Your task to perform on an android device: Open Youtube and go to "Your channel" Image 0: 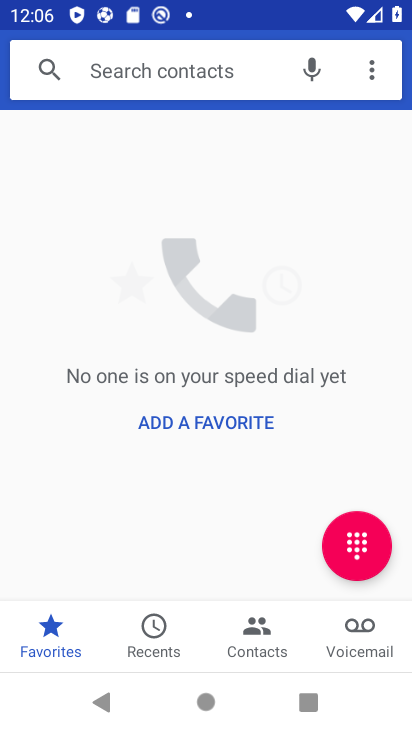
Step 0: press home button
Your task to perform on an android device: Open Youtube and go to "Your channel" Image 1: 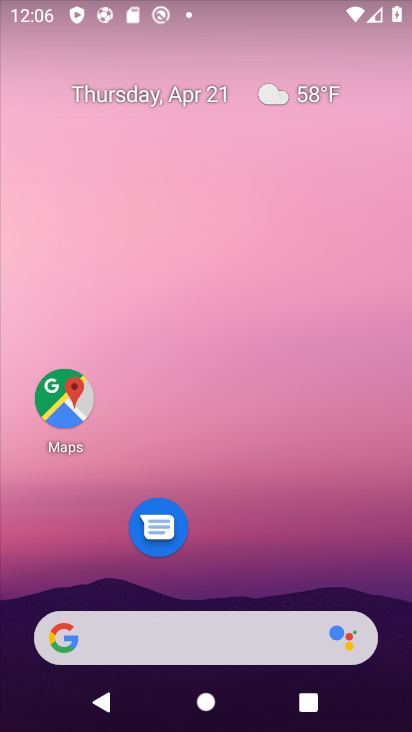
Step 1: drag from (206, 730) to (169, 81)
Your task to perform on an android device: Open Youtube and go to "Your channel" Image 2: 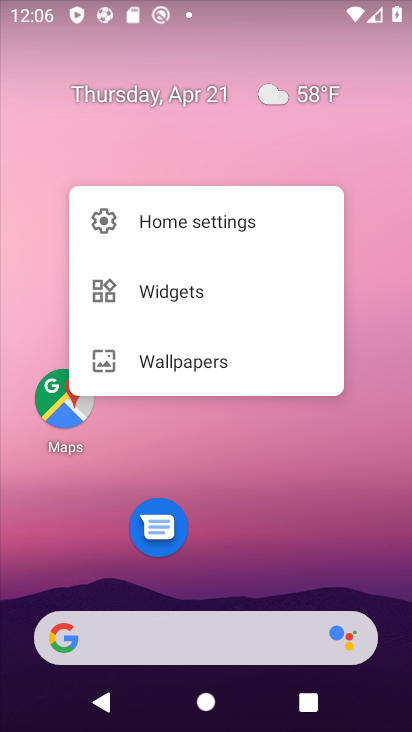
Step 2: click (223, 156)
Your task to perform on an android device: Open Youtube and go to "Your channel" Image 3: 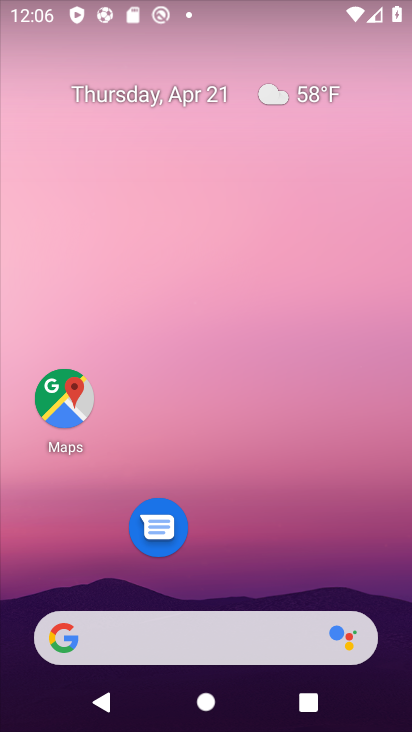
Step 3: drag from (228, 725) to (230, 69)
Your task to perform on an android device: Open Youtube and go to "Your channel" Image 4: 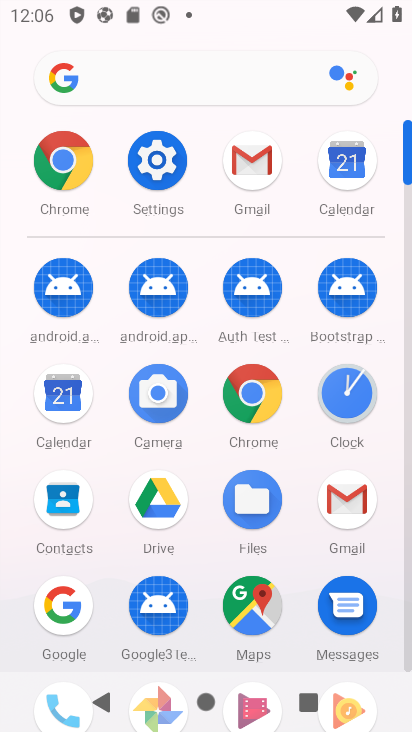
Step 4: drag from (295, 634) to (298, 258)
Your task to perform on an android device: Open Youtube and go to "Your channel" Image 5: 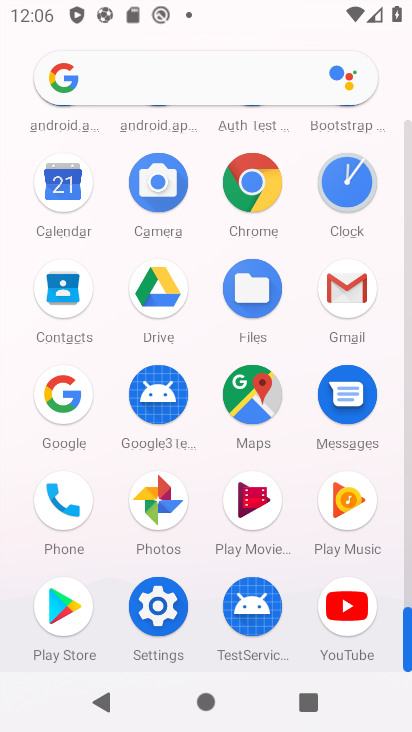
Step 5: click (346, 608)
Your task to perform on an android device: Open Youtube and go to "Your channel" Image 6: 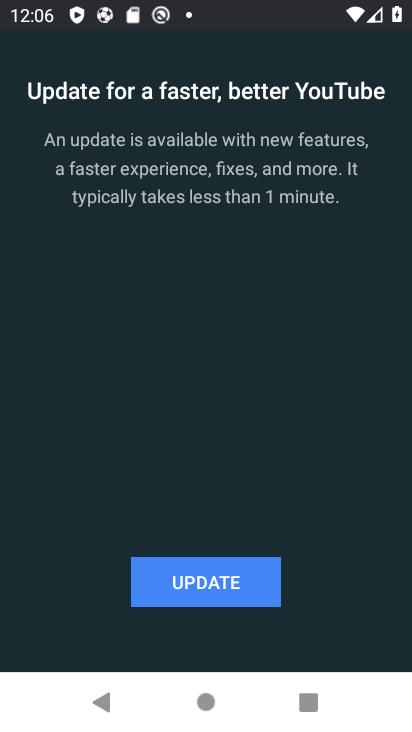
Step 6: click (226, 580)
Your task to perform on an android device: Open Youtube and go to "Your channel" Image 7: 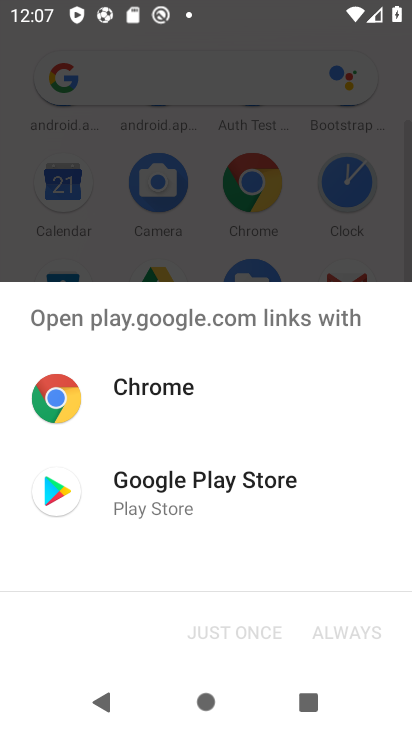
Step 7: click (256, 626)
Your task to perform on an android device: Open Youtube and go to "Your channel" Image 8: 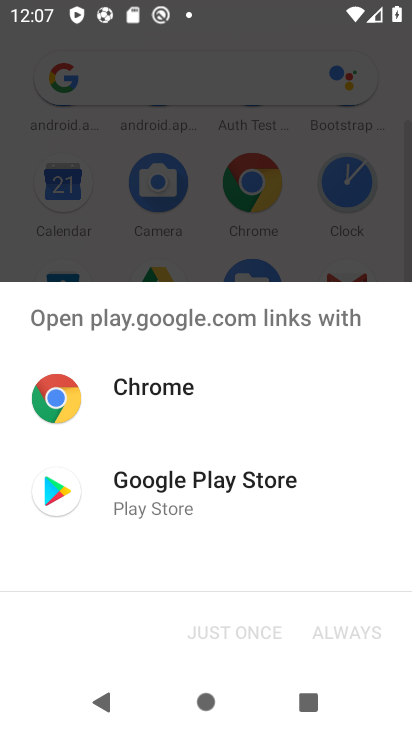
Step 8: press back button
Your task to perform on an android device: Open Youtube and go to "Your channel" Image 9: 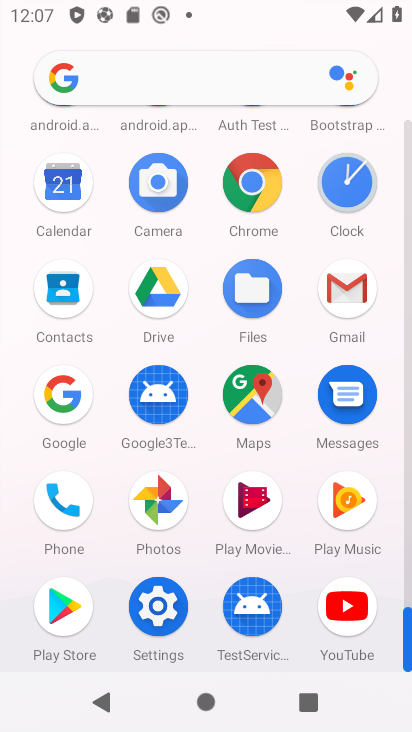
Step 9: click (345, 608)
Your task to perform on an android device: Open Youtube and go to "Your channel" Image 10: 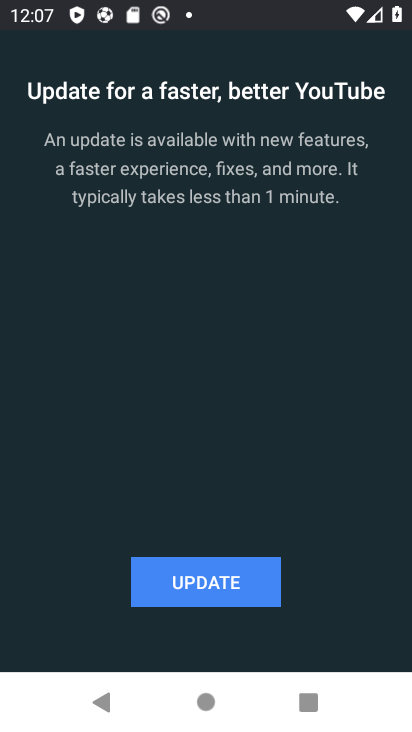
Step 10: click (227, 587)
Your task to perform on an android device: Open Youtube and go to "Your channel" Image 11: 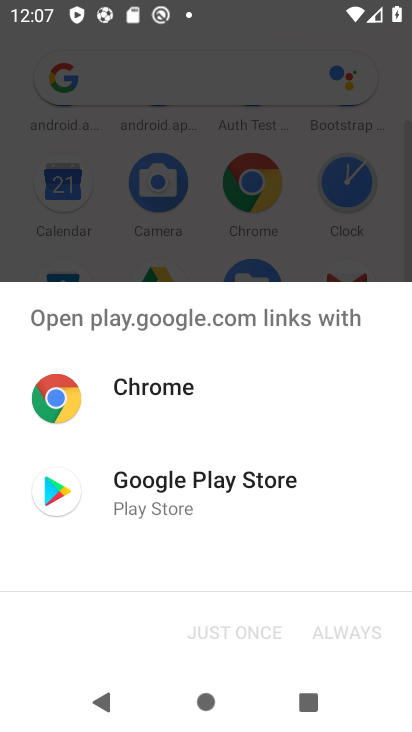
Step 11: click (187, 492)
Your task to perform on an android device: Open Youtube and go to "Your channel" Image 12: 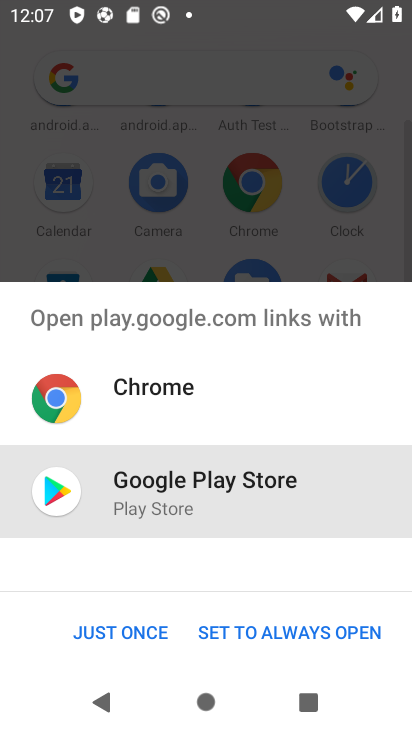
Step 12: click (116, 633)
Your task to perform on an android device: Open Youtube and go to "Your channel" Image 13: 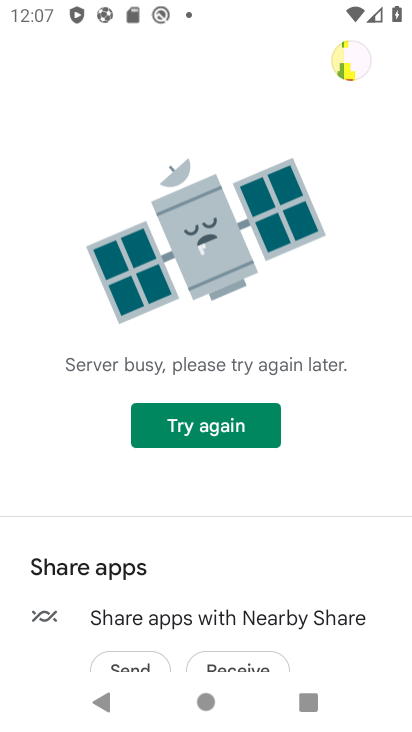
Step 13: drag from (228, 588) to (234, 230)
Your task to perform on an android device: Open Youtube and go to "Your channel" Image 14: 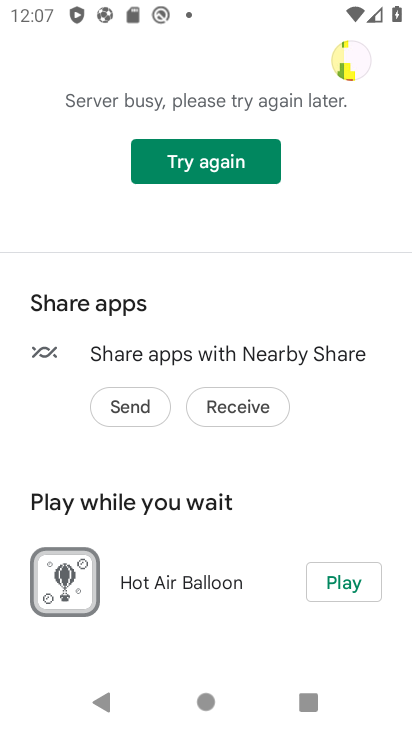
Step 14: click (195, 171)
Your task to perform on an android device: Open Youtube and go to "Your channel" Image 15: 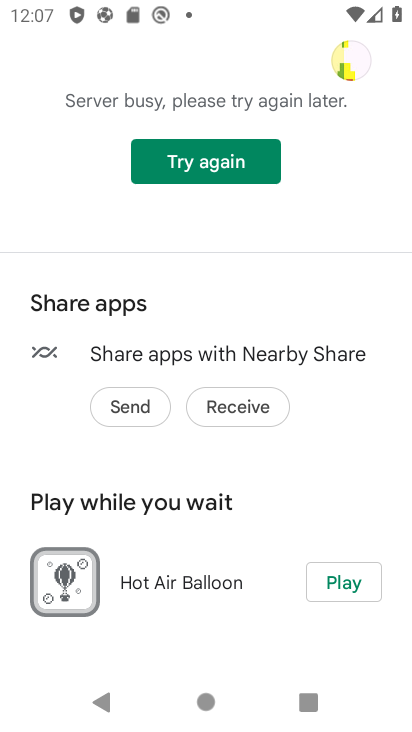
Step 15: click (195, 156)
Your task to perform on an android device: Open Youtube and go to "Your channel" Image 16: 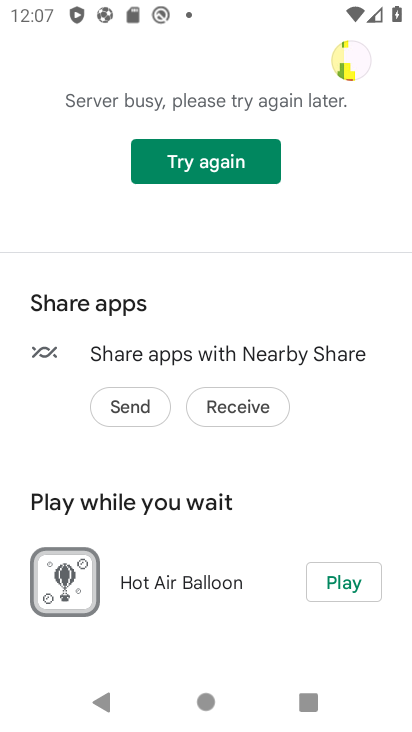
Step 16: task complete